Your task to perform on an android device: Play the last video I watched on Youtube Image 0: 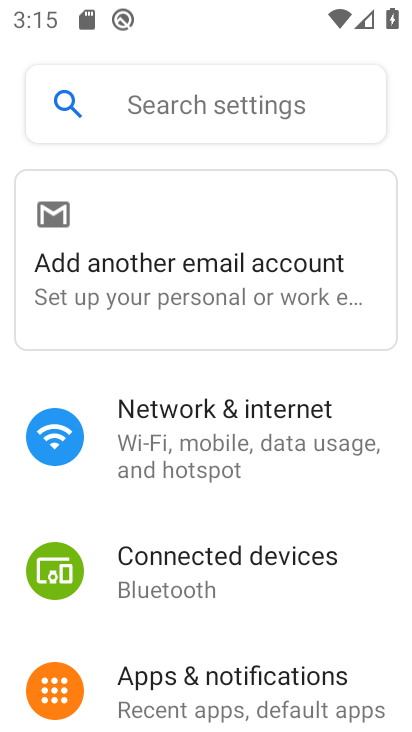
Step 0: press back button
Your task to perform on an android device: Play the last video I watched on Youtube Image 1: 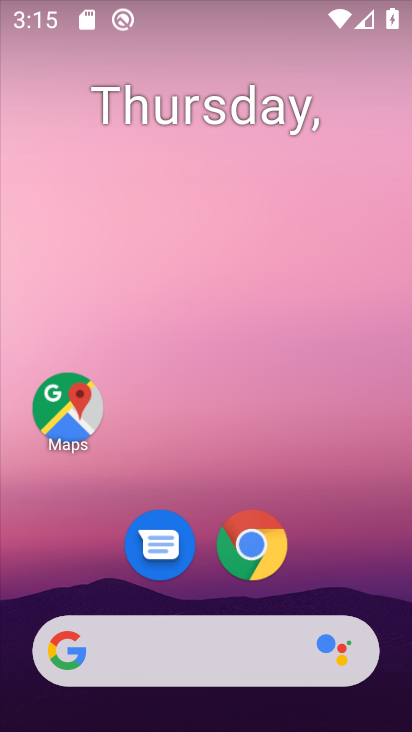
Step 1: drag from (337, 537) to (327, 65)
Your task to perform on an android device: Play the last video I watched on Youtube Image 2: 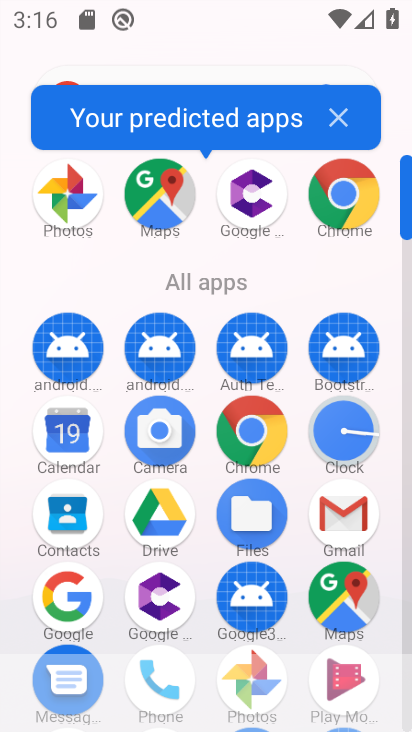
Step 2: drag from (205, 490) to (205, 233)
Your task to perform on an android device: Play the last video I watched on Youtube Image 3: 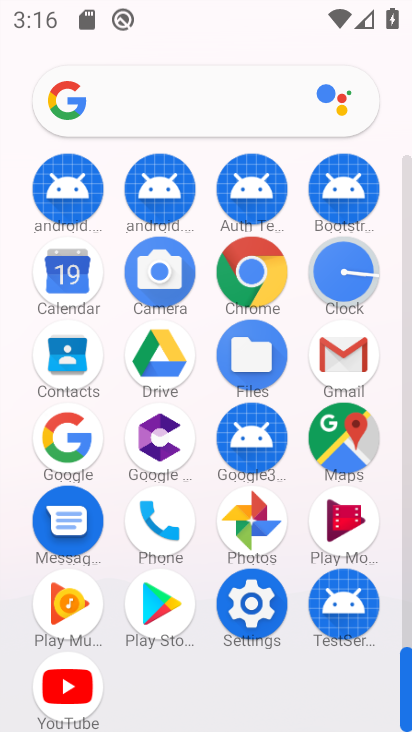
Step 3: click (67, 686)
Your task to perform on an android device: Play the last video I watched on Youtube Image 4: 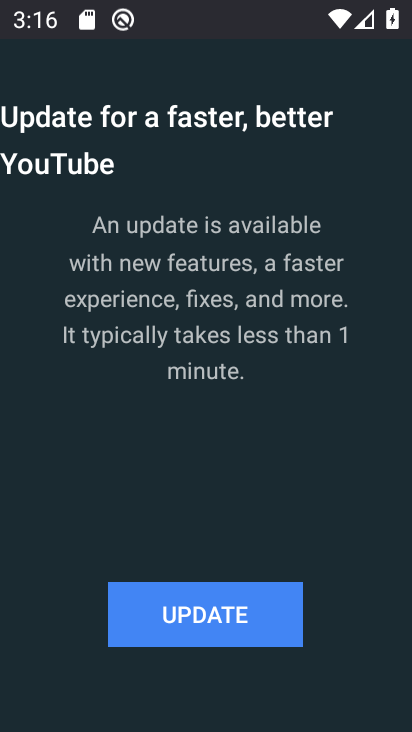
Step 4: click (219, 612)
Your task to perform on an android device: Play the last video I watched on Youtube Image 5: 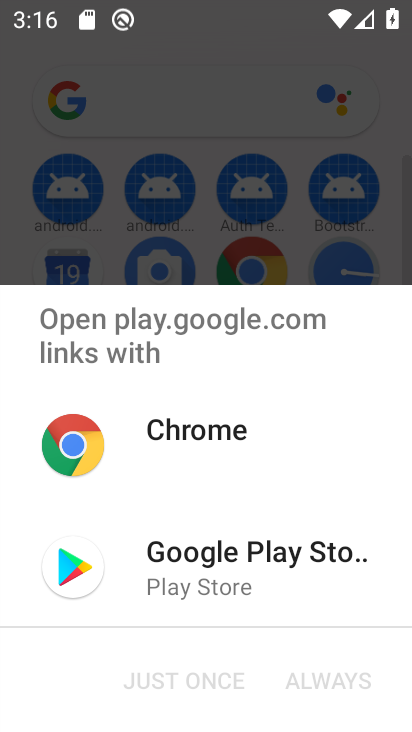
Step 5: click (210, 548)
Your task to perform on an android device: Play the last video I watched on Youtube Image 6: 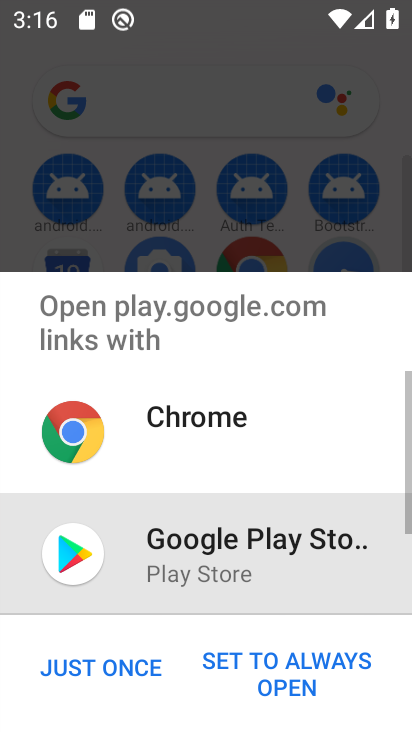
Step 6: click (112, 667)
Your task to perform on an android device: Play the last video I watched on Youtube Image 7: 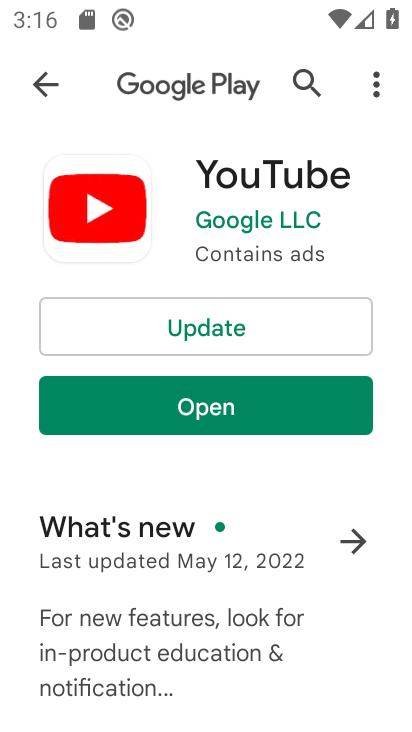
Step 7: click (225, 327)
Your task to perform on an android device: Play the last video I watched on Youtube Image 8: 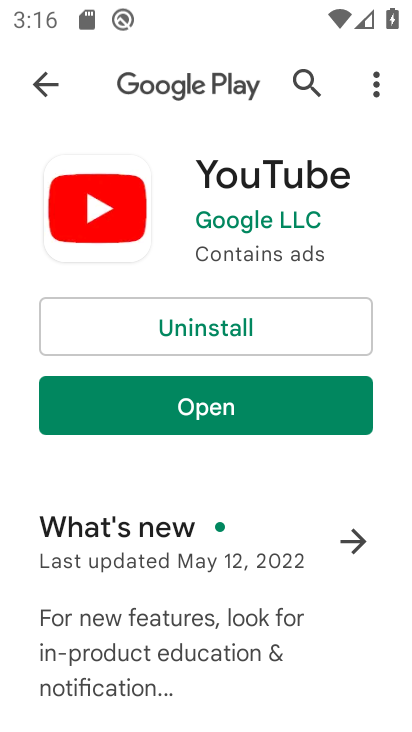
Step 8: click (220, 400)
Your task to perform on an android device: Play the last video I watched on Youtube Image 9: 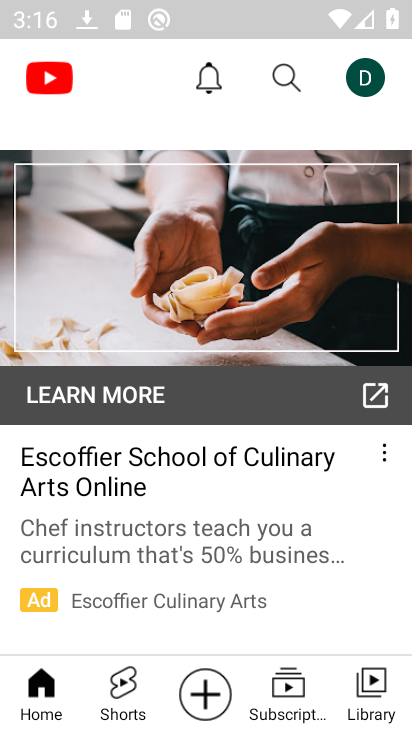
Step 9: click (378, 683)
Your task to perform on an android device: Play the last video I watched on Youtube Image 10: 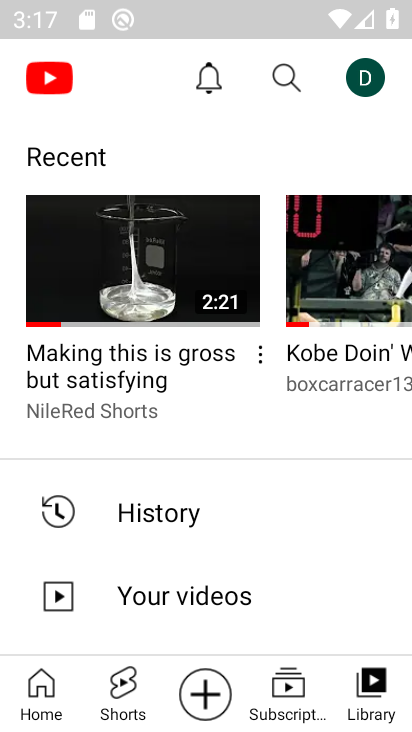
Step 10: click (142, 271)
Your task to perform on an android device: Play the last video I watched on Youtube Image 11: 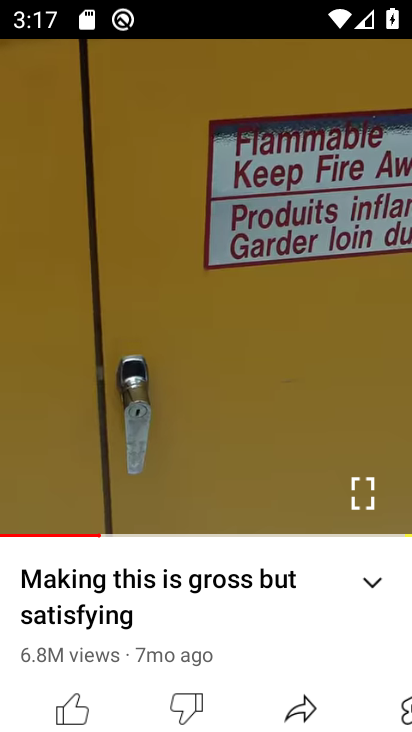
Step 11: click (185, 330)
Your task to perform on an android device: Play the last video I watched on Youtube Image 12: 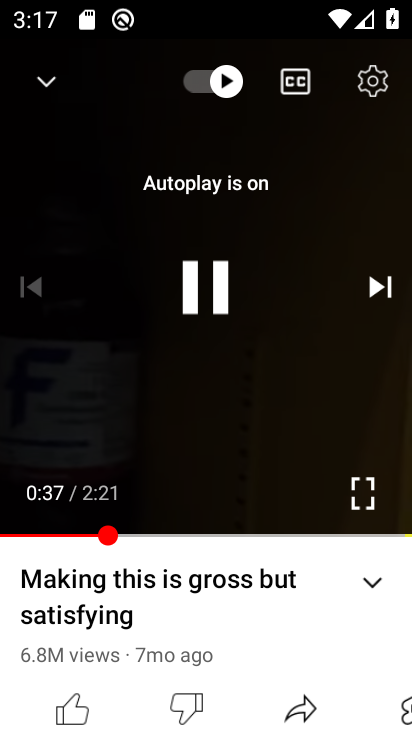
Step 12: click (225, 296)
Your task to perform on an android device: Play the last video I watched on Youtube Image 13: 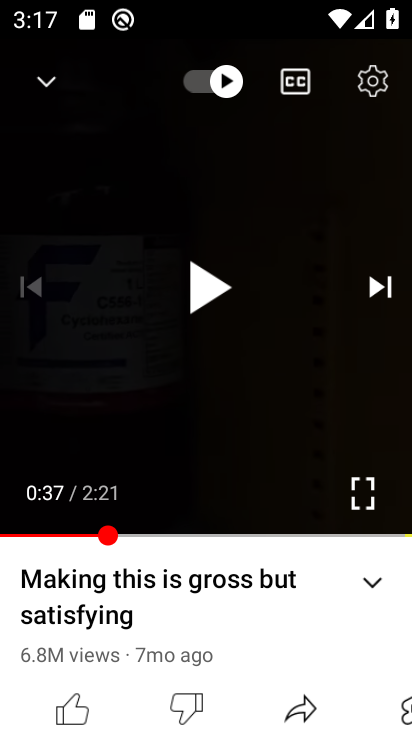
Step 13: task complete